Your task to perform on an android device: open device folders in google photos Image 0: 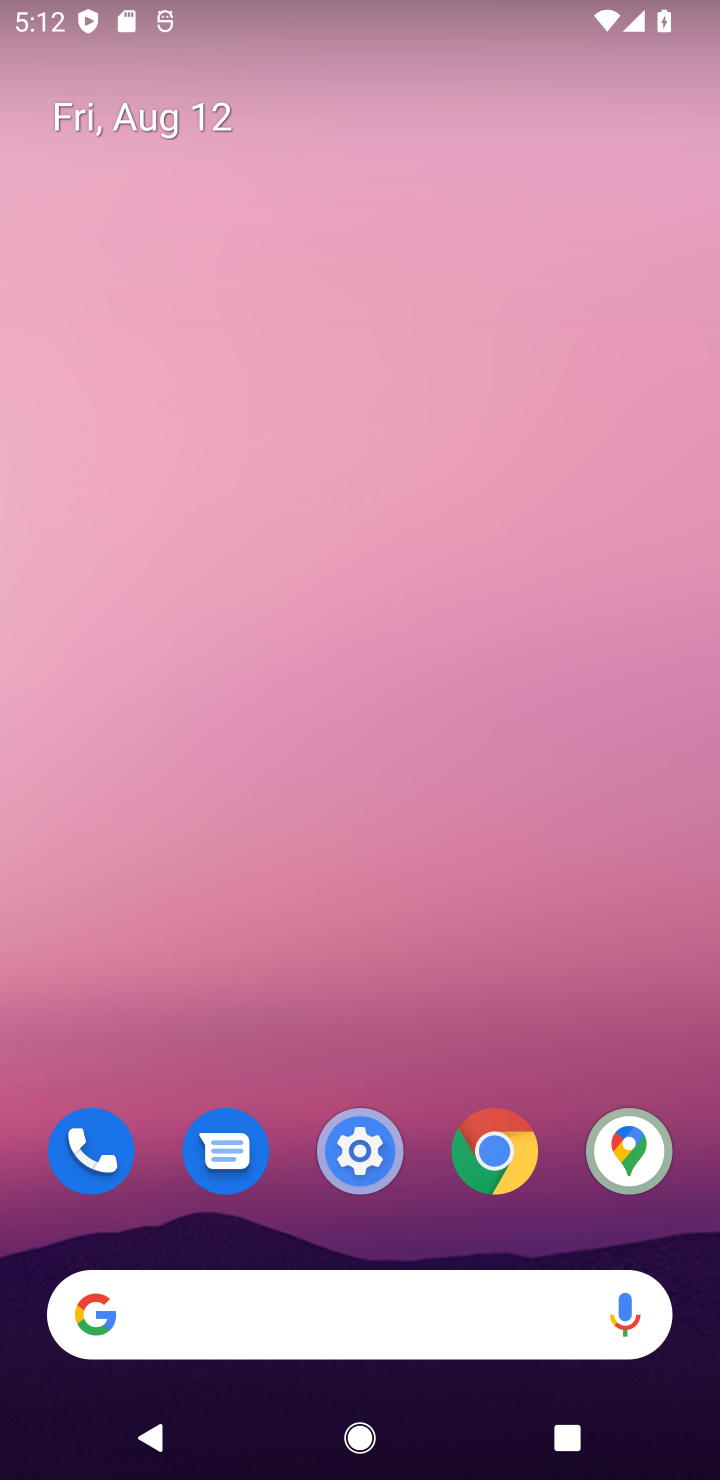
Step 0: drag from (554, 1063) to (543, 115)
Your task to perform on an android device: open device folders in google photos Image 1: 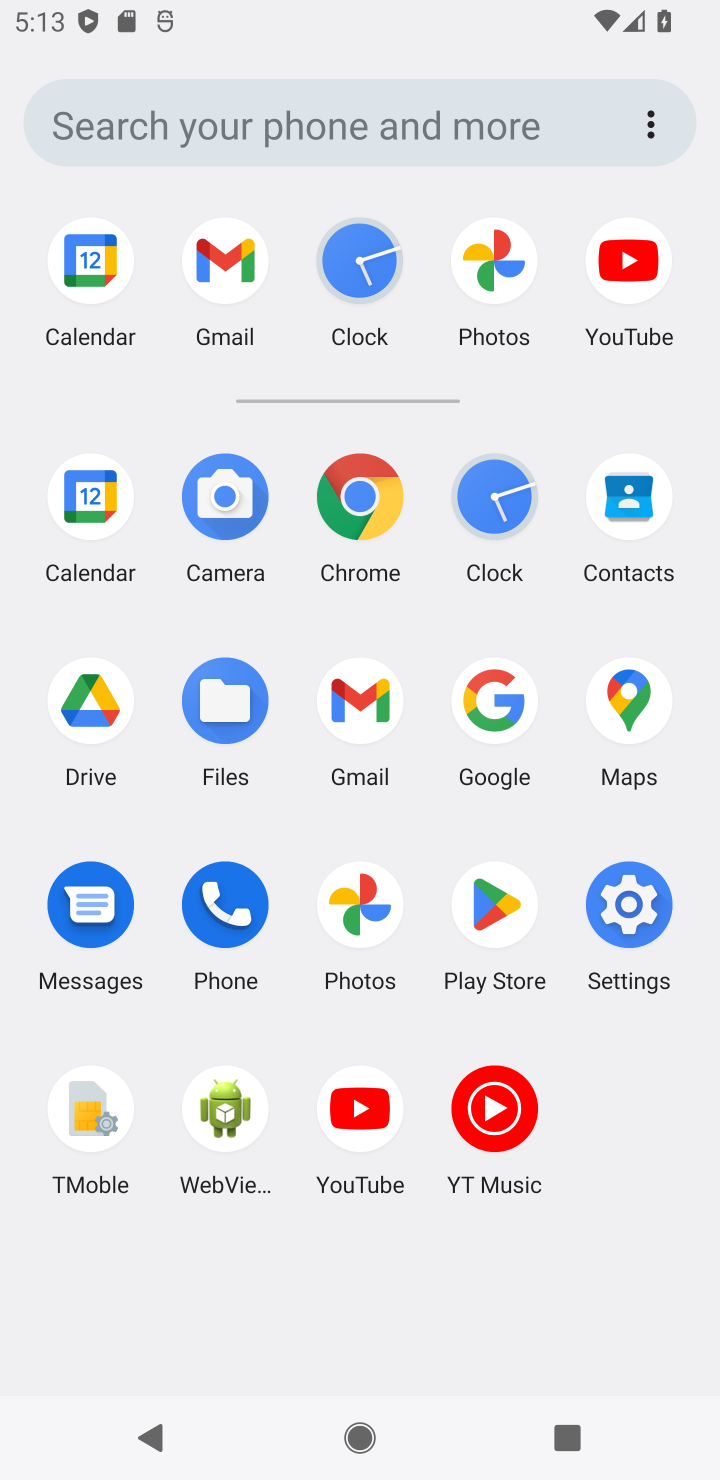
Step 1: click (366, 902)
Your task to perform on an android device: open device folders in google photos Image 2: 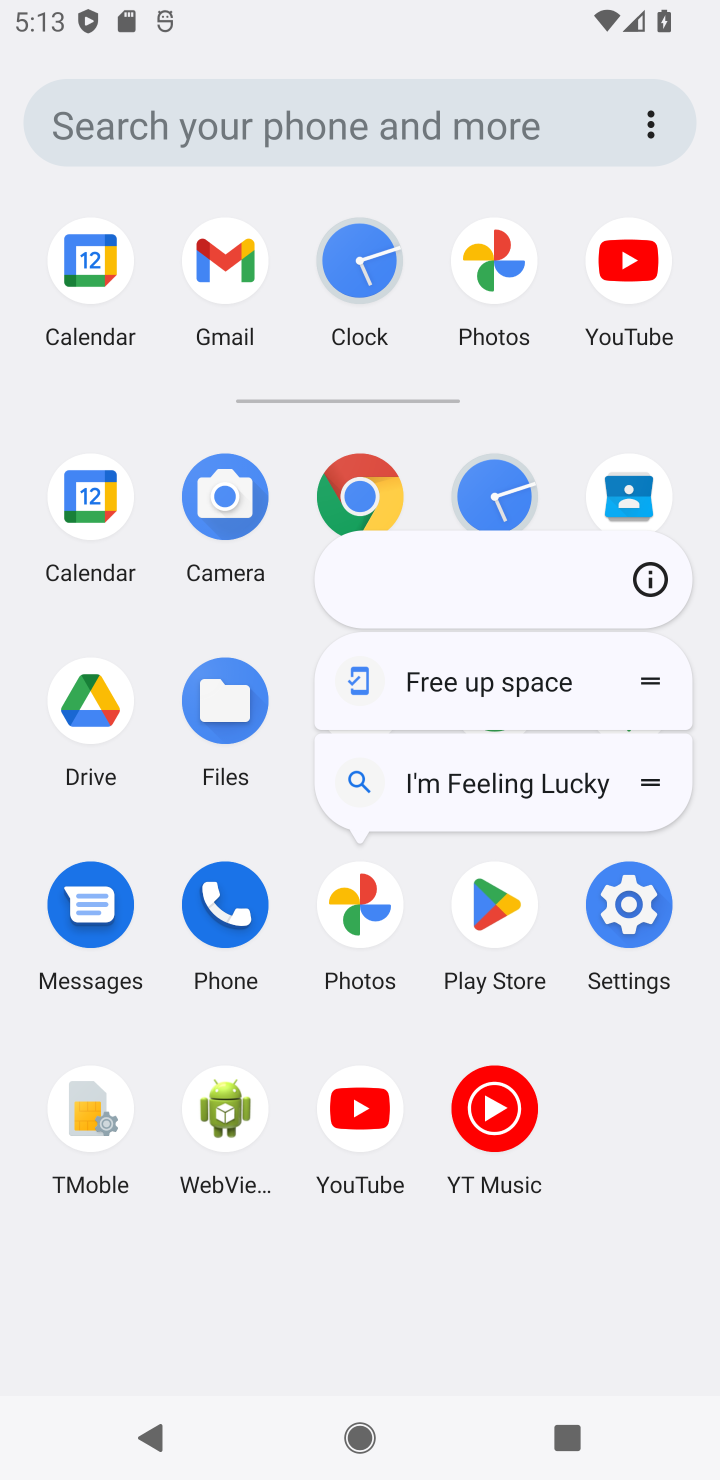
Step 2: click (360, 902)
Your task to perform on an android device: open device folders in google photos Image 3: 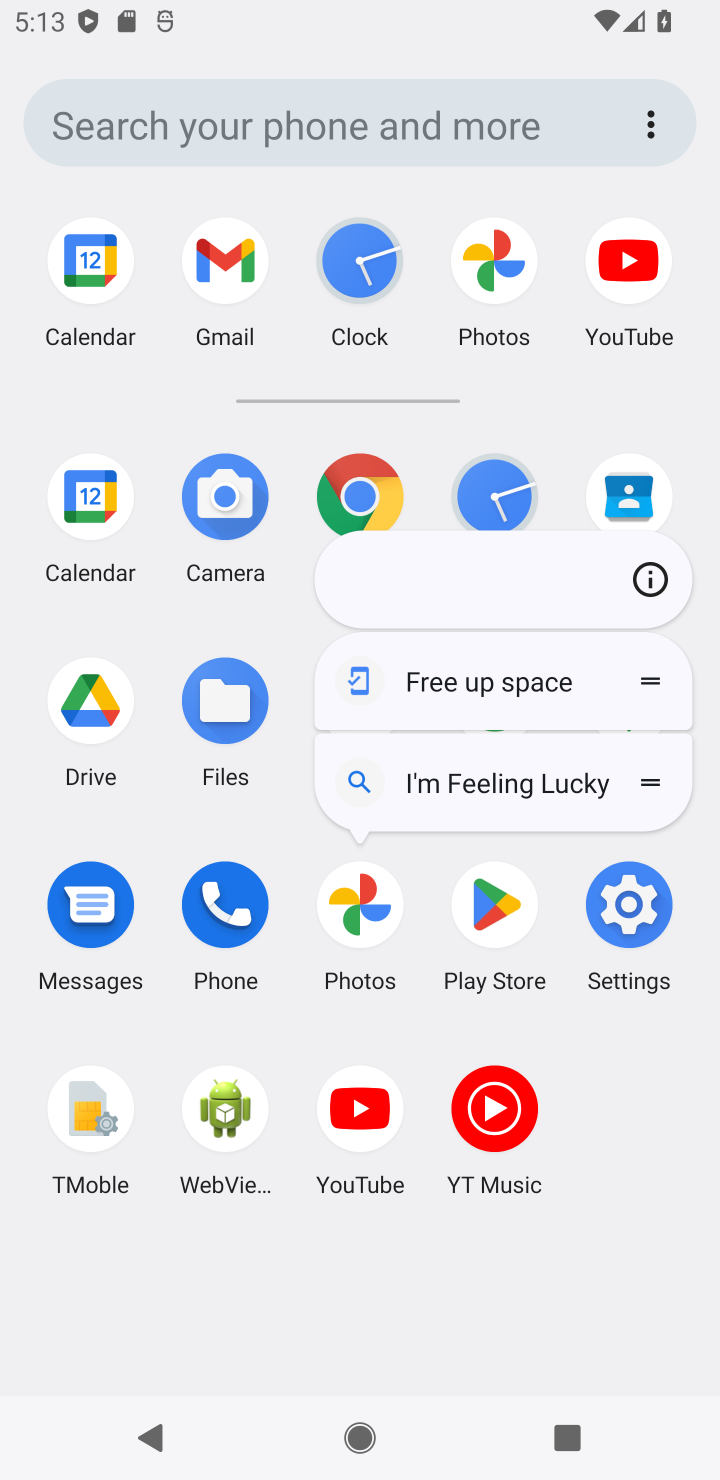
Step 3: click (360, 902)
Your task to perform on an android device: open device folders in google photos Image 4: 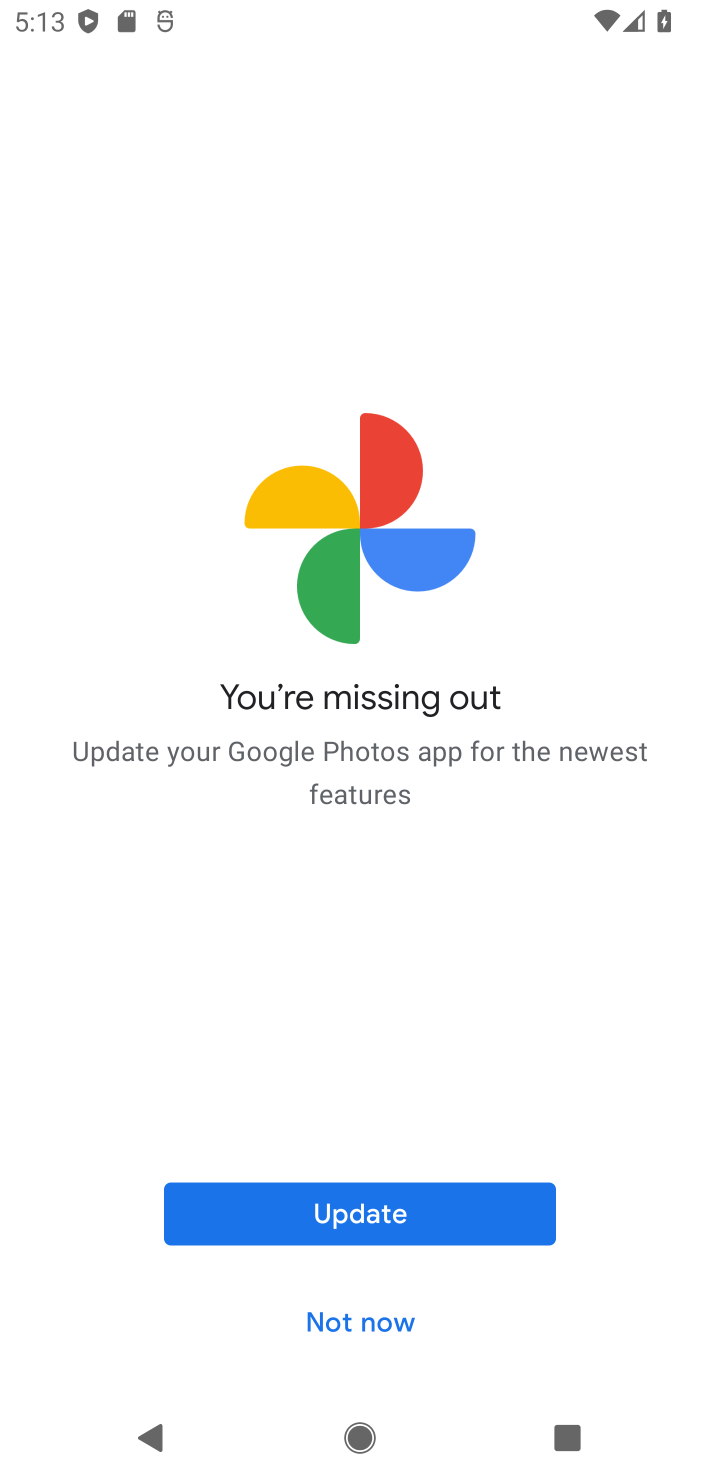
Step 4: click (385, 1308)
Your task to perform on an android device: open device folders in google photos Image 5: 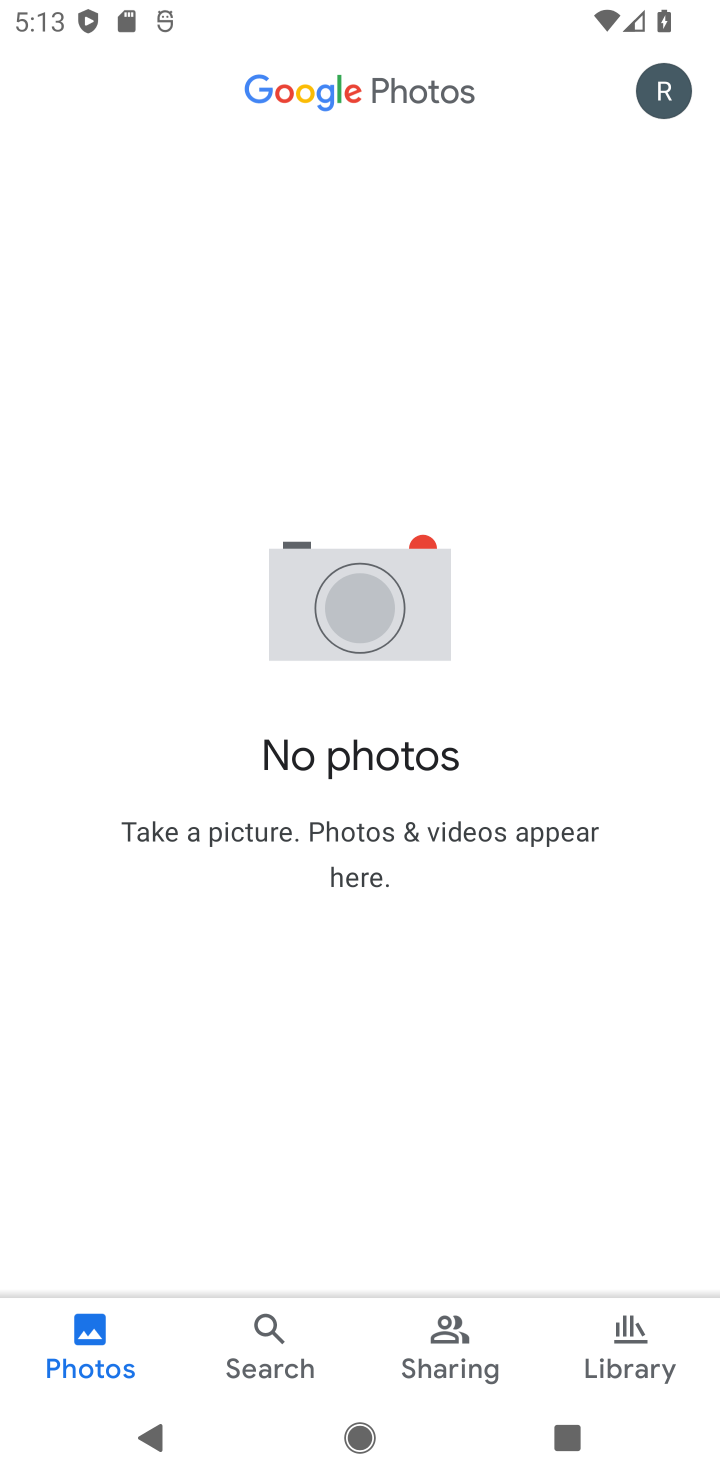
Step 5: click (654, 93)
Your task to perform on an android device: open device folders in google photos Image 6: 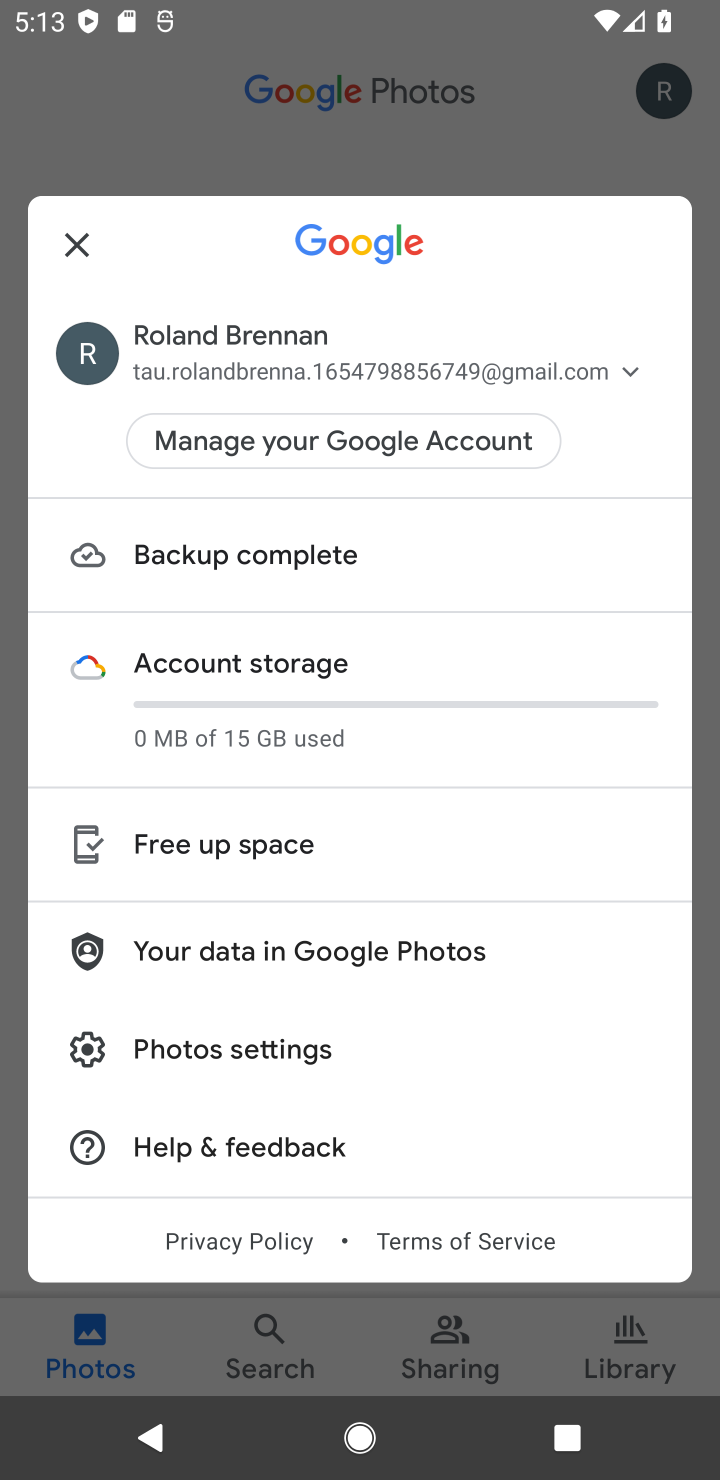
Step 6: click (534, 1320)
Your task to perform on an android device: open device folders in google photos Image 7: 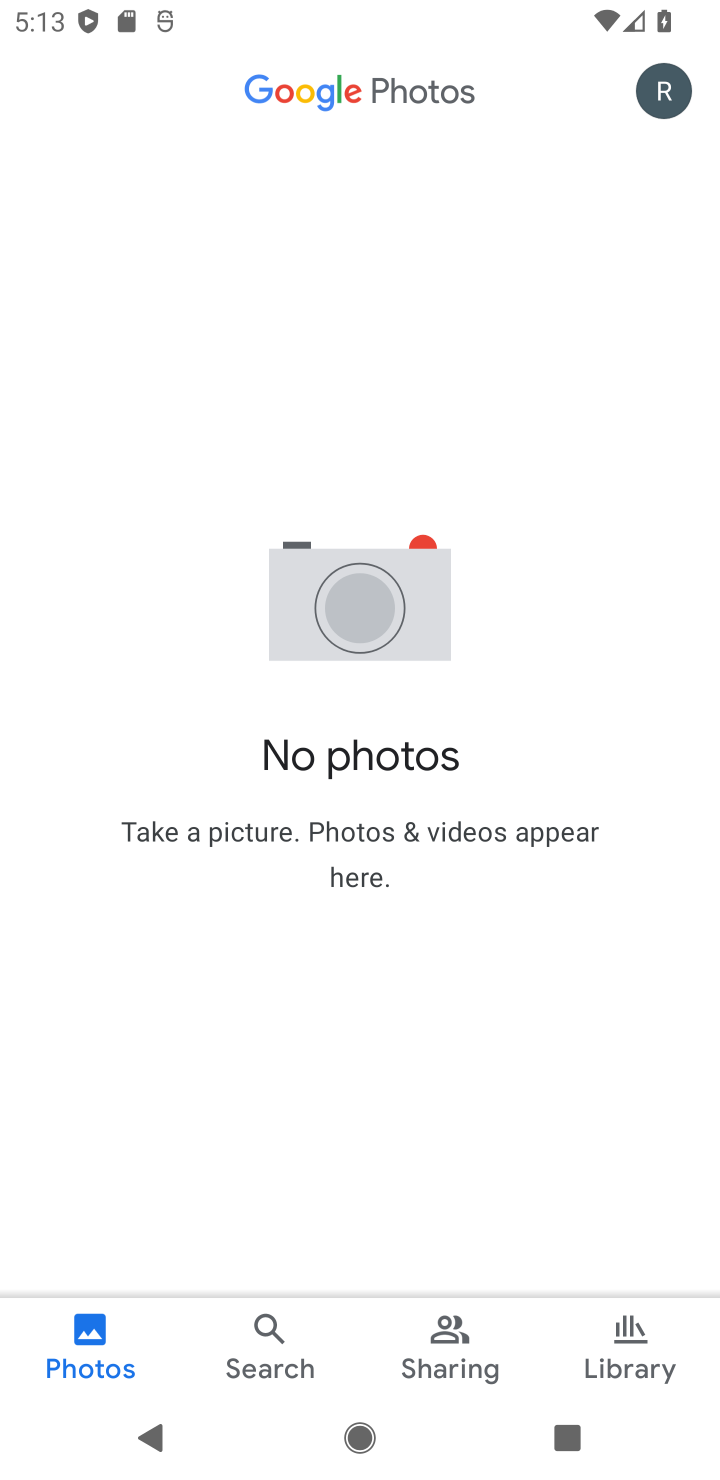
Step 7: click (635, 1342)
Your task to perform on an android device: open device folders in google photos Image 8: 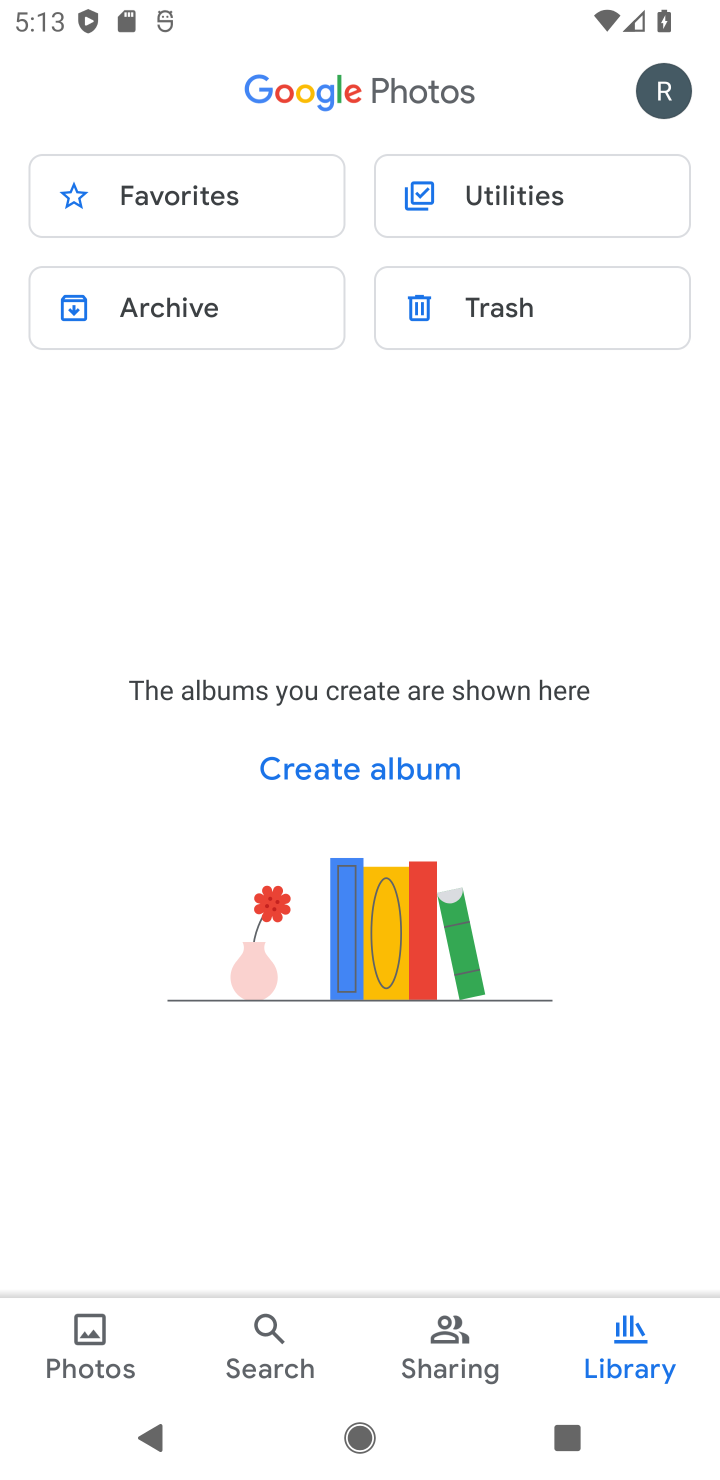
Step 8: click (489, 176)
Your task to perform on an android device: open device folders in google photos Image 9: 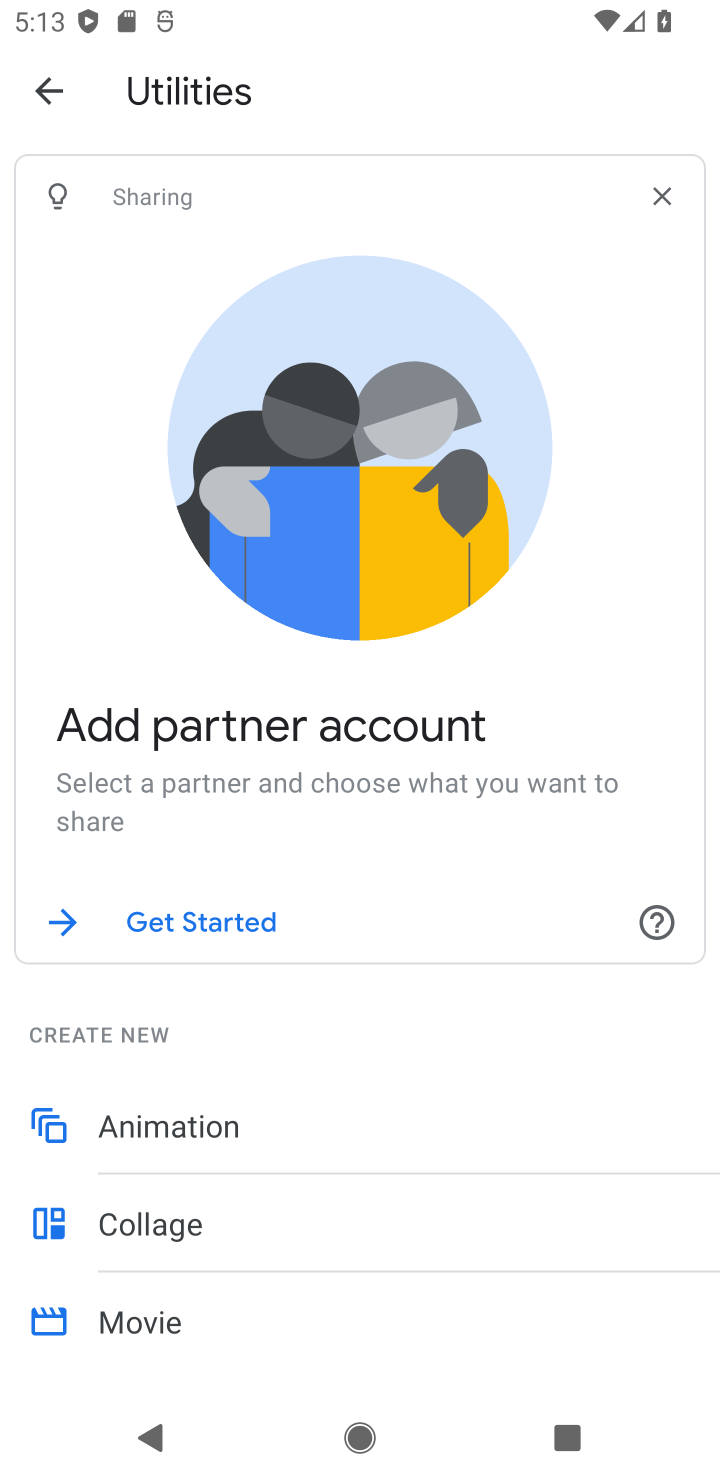
Step 9: click (60, 82)
Your task to perform on an android device: open device folders in google photos Image 10: 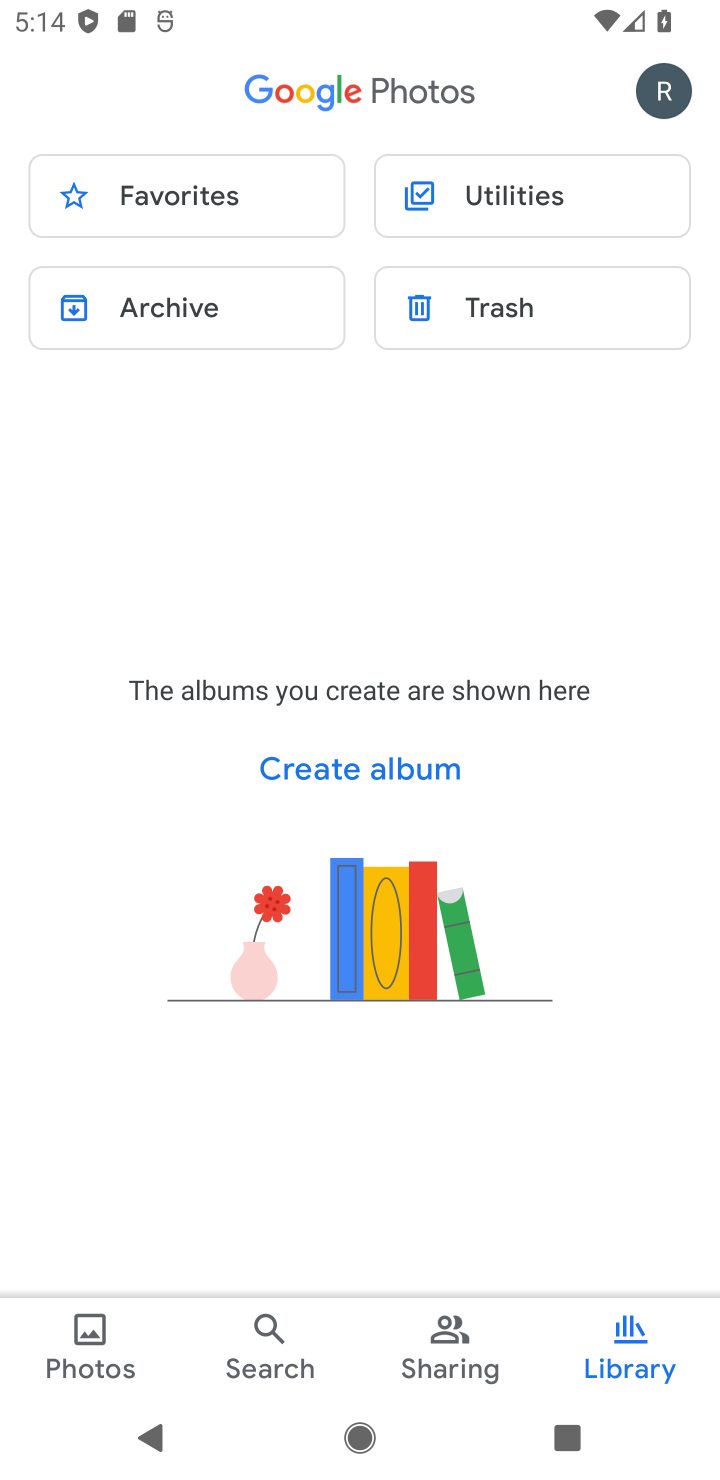
Step 10: click (479, 212)
Your task to perform on an android device: open device folders in google photos Image 11: 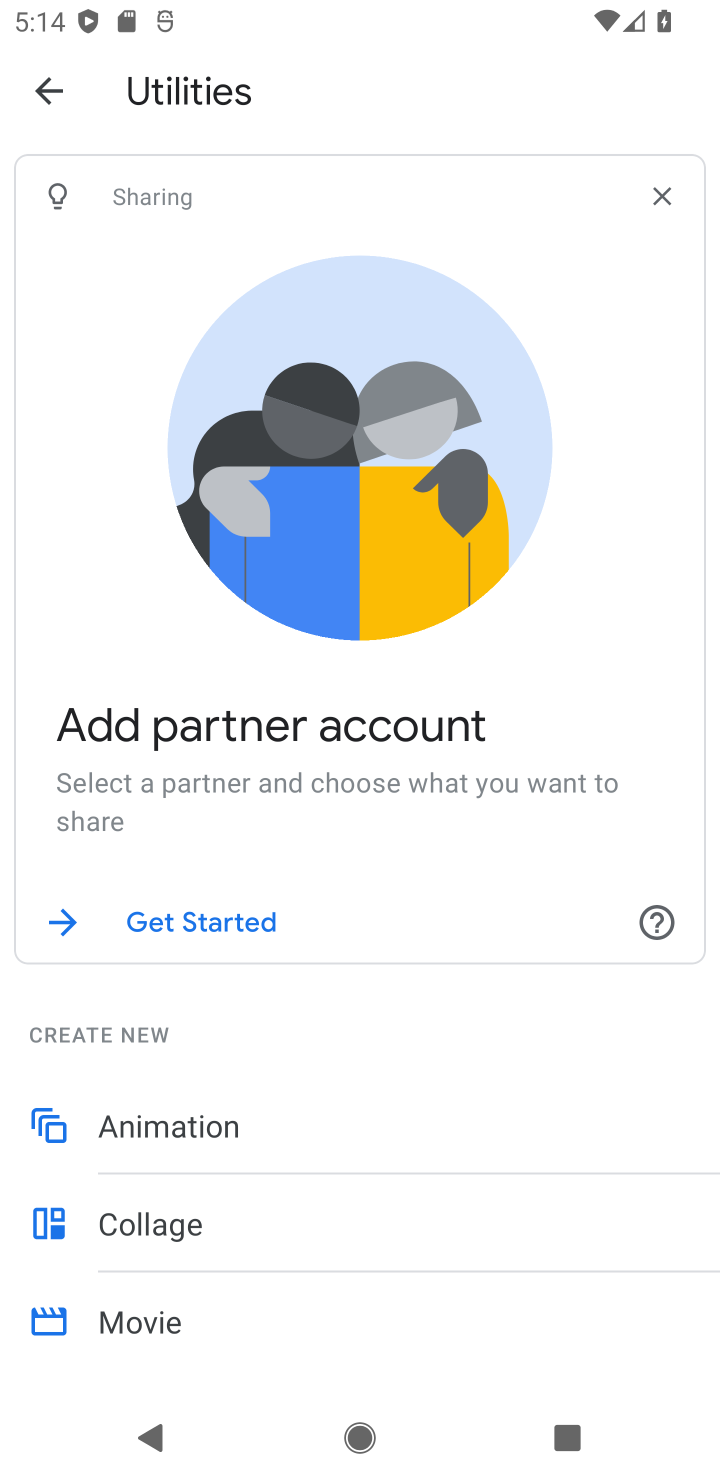
Step 11: drag from (429, 941) to (565, 271)
Your task to perform on an android device: open device folders in google photos Image 12: 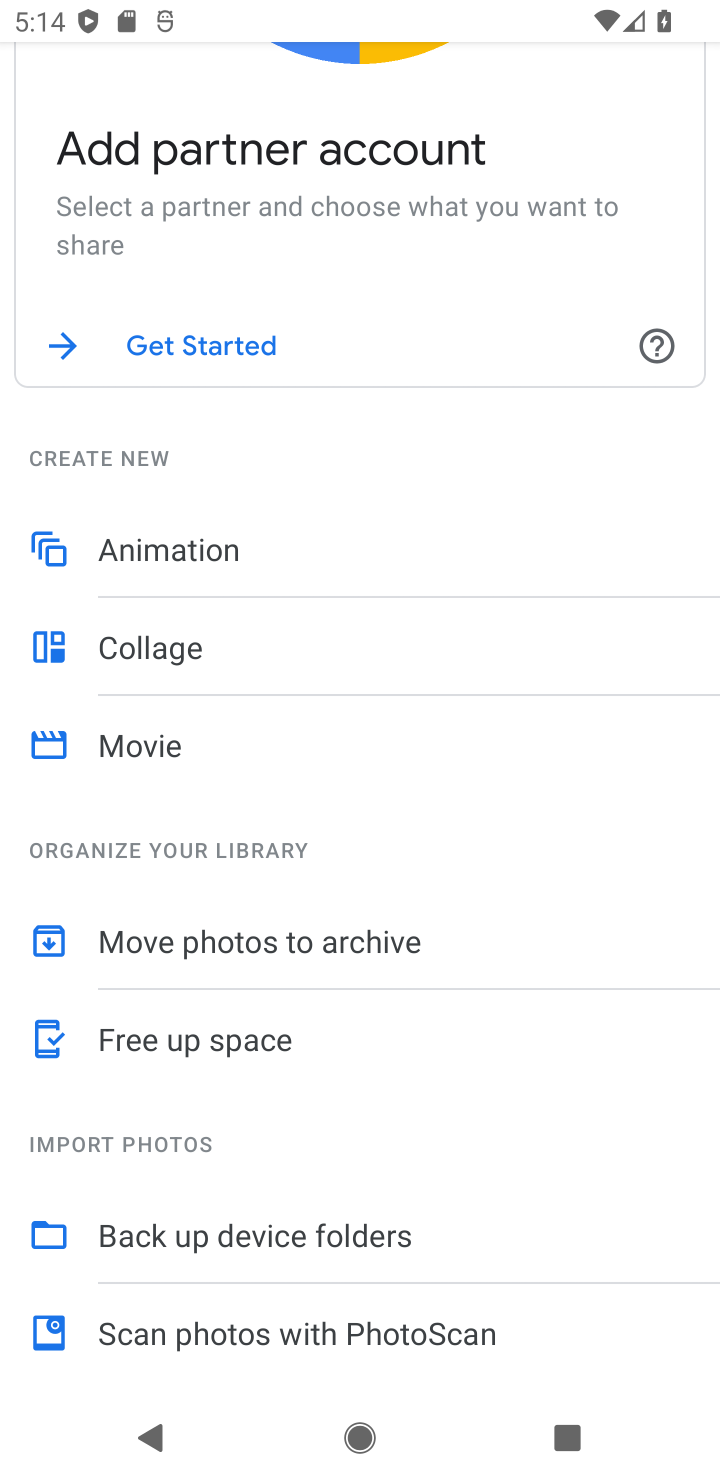
Step 12: click (365, 1232)
Your task to perform on an android device: open device folders in google photos Image 13: 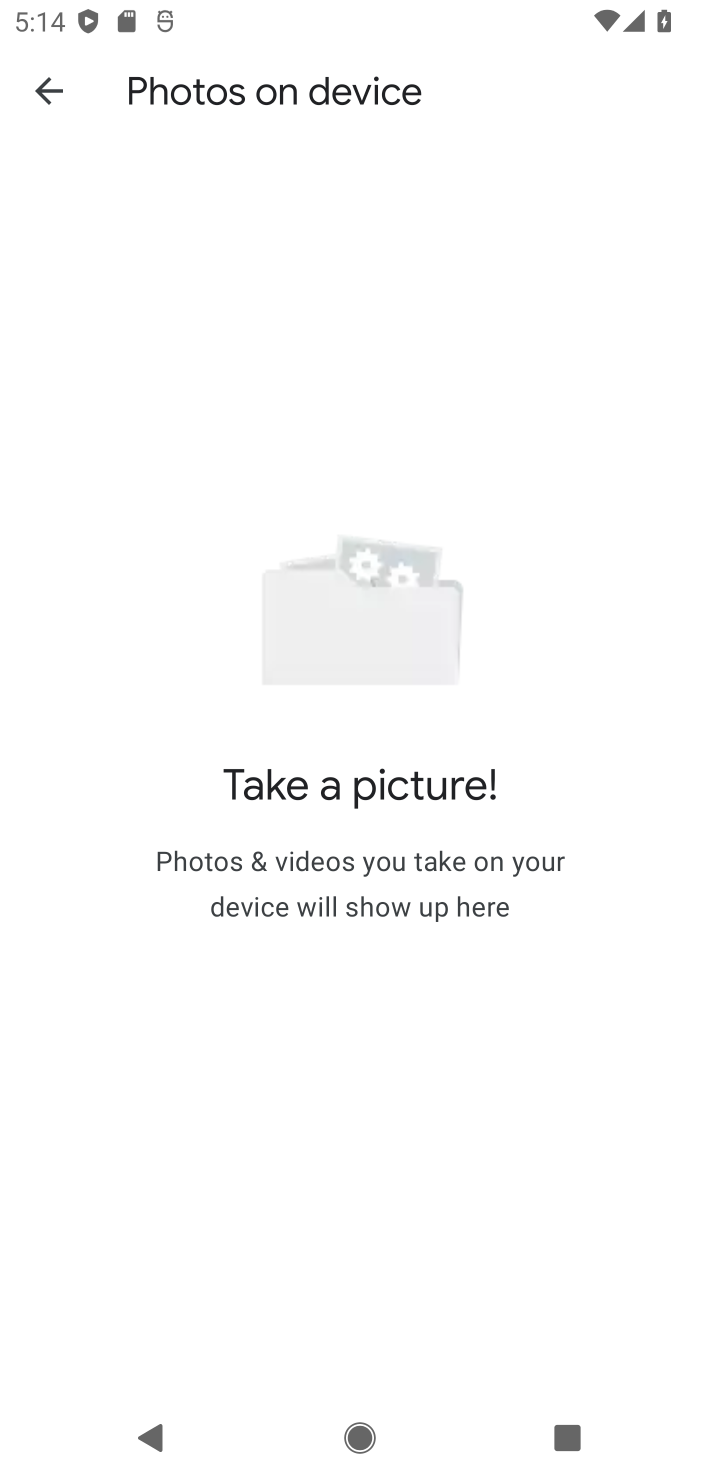
Step 13: task complete